Your task to perform on an android device: change your default location settings in chrome Image 0: 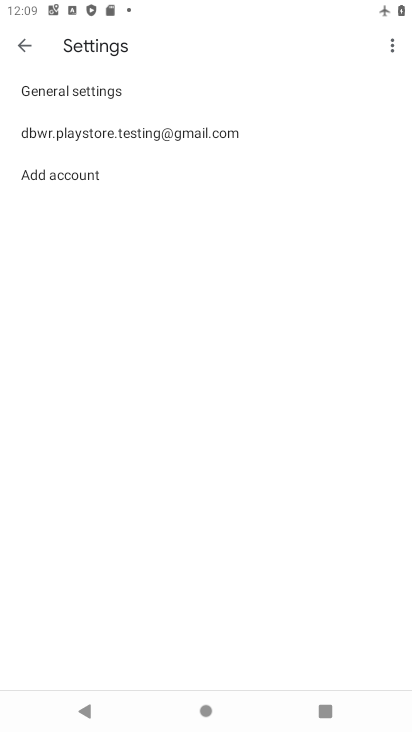
Step 0: press home button
Your task to perform on an android device: change your default location settings in chrome Image 1: 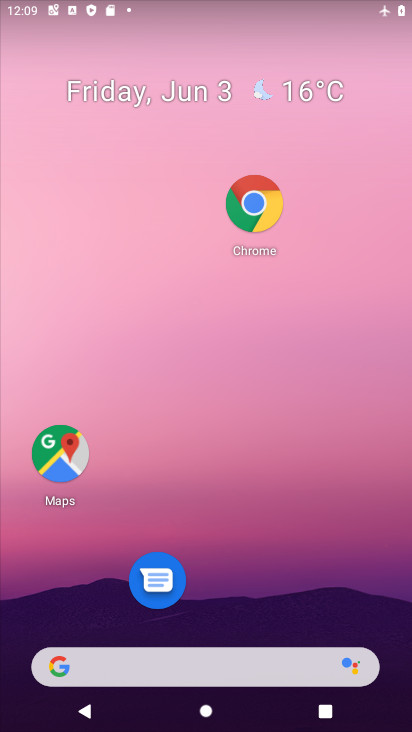
Step 1: drag from (197, 608) to (250, 94)
Your task to perform on an android device: change your default location settings in chrome Image 2: 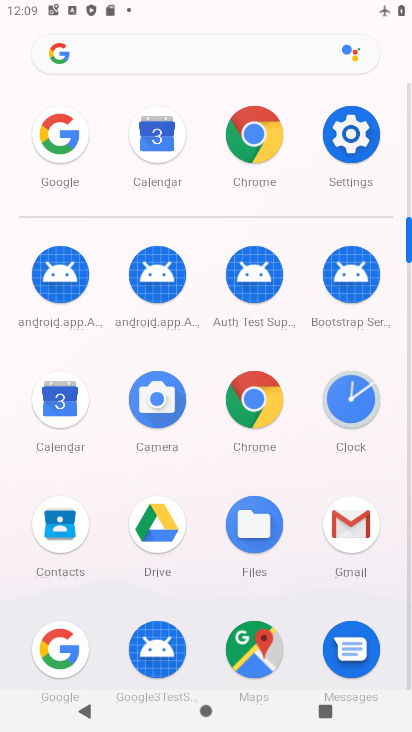
Step 2: click (257, 412)
Your task to perform on an android device: change your default location settings in chrome Image 3: 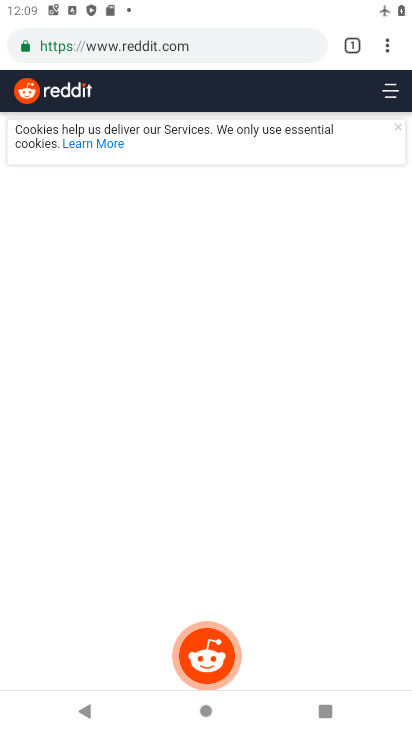
Step 3: click (387, 49)
Your task to perform on an android device: change your default location settings in chrome Image 4: 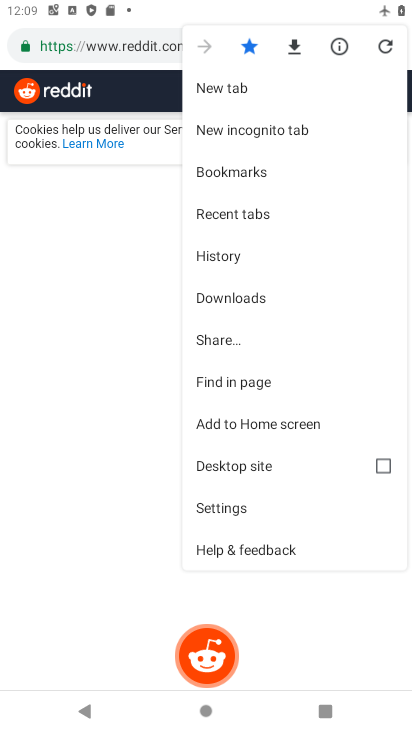
Step 4: click (231, 505)
Your task to perform on an android device: change your default location settings in chrome Image 5: 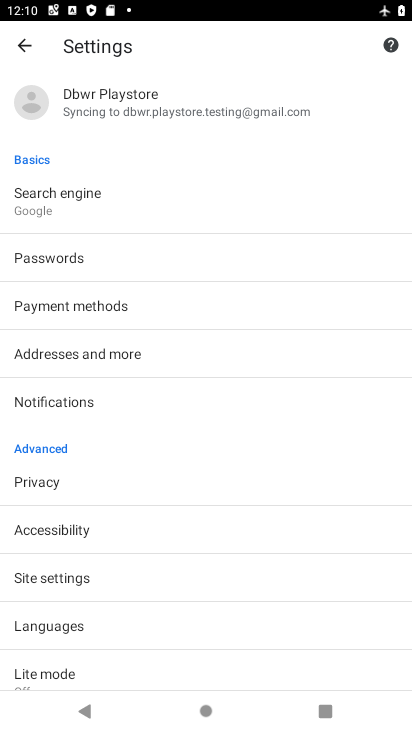
Step 5: click (76, 577)
Your task to perform on an android device: change your default location settings in chrome Image 6: 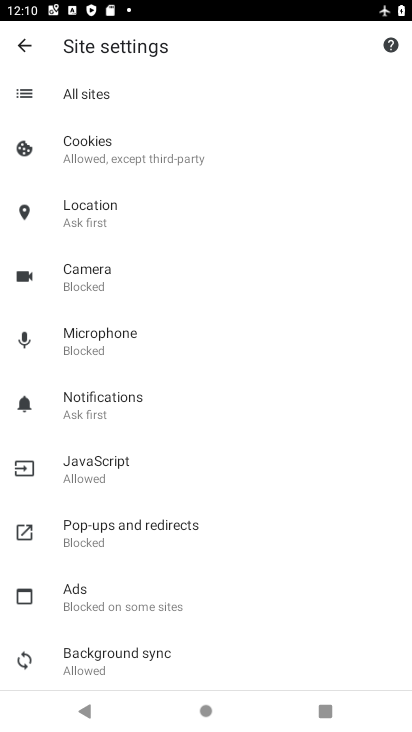
Step 6: click (145, 218)
Your task to perform on an android device: change your default location settings in chrome Image 7: 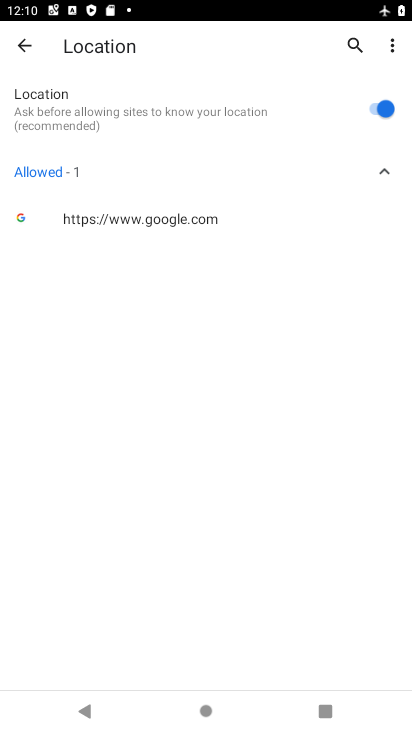
Step 7: click (377, 106)
Your task to perform on an android device: change your default location settings in chrome Image 8: 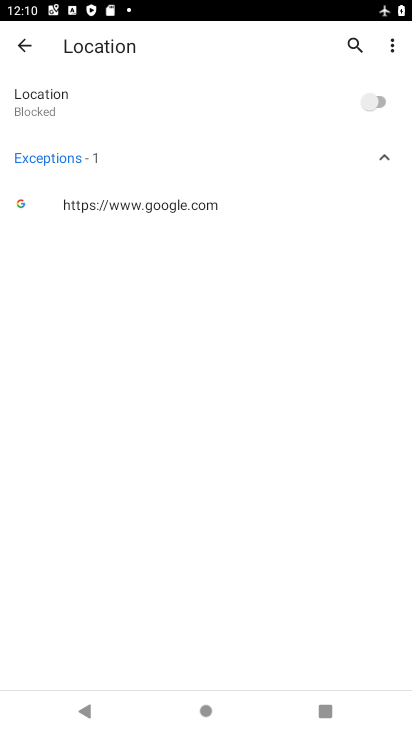
Step 8: task complete